Your task to perform on an android device: turn on the 12-hour format for clock Image 0: 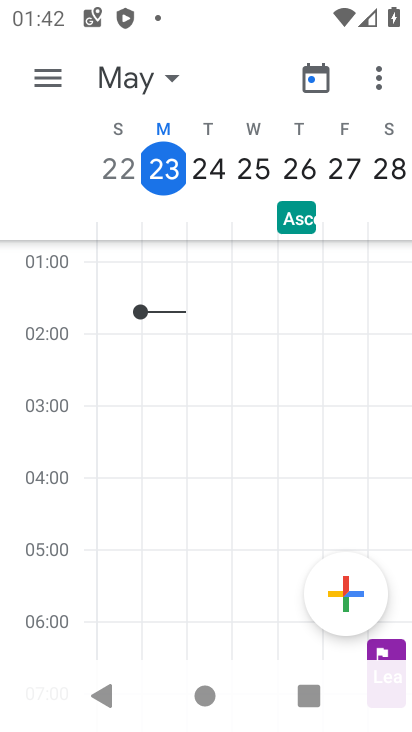
Step 0: press home button
Your task to perform on an android device: turn on the 12-hour format for clock Image 1: 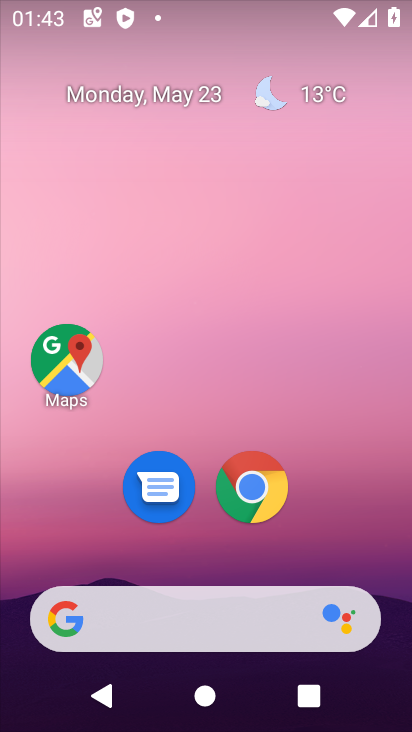
Step 1: drag from (402, 616) to (315, 13)
Your task to perform on an android device: turn on the 12-hour format for clock Image 2: 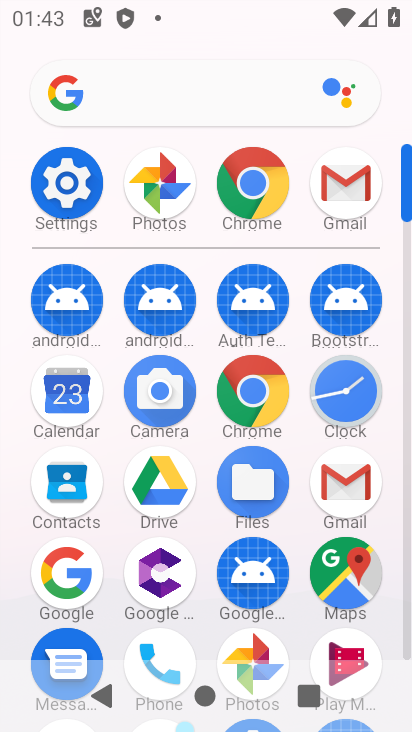
Step 2: click (402, 634)
Your task to perform on an android device: turn on the 12-hour format for clock Image 3: 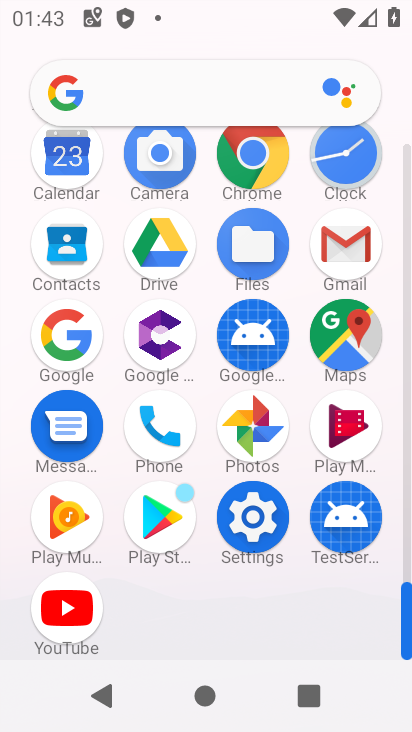
Step 3: click (350, 149)
Your task to perform on an android device: turn on the 12-hour format for clock Image 4: 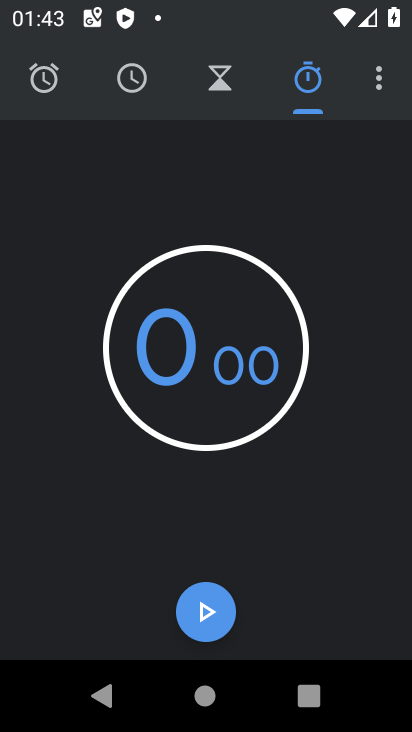
Step 4: click (375, 89)
Your task to perform on an android device: turn on the 12-hour format for clock Image 5: 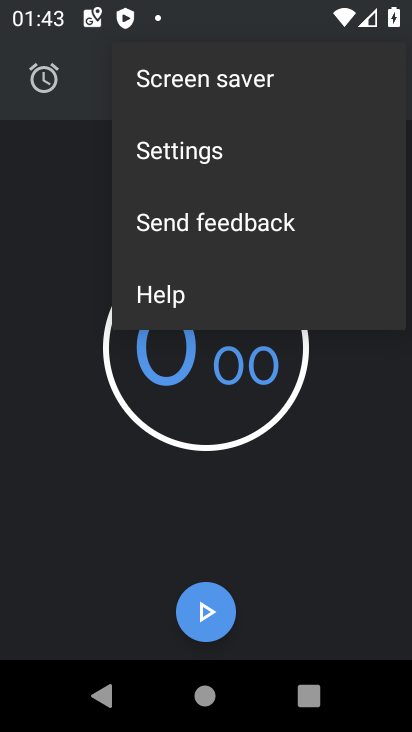
Step 5: click (171, 148)
Your task to perform on an android device: turn on the 12-hour format for clock Image 6: 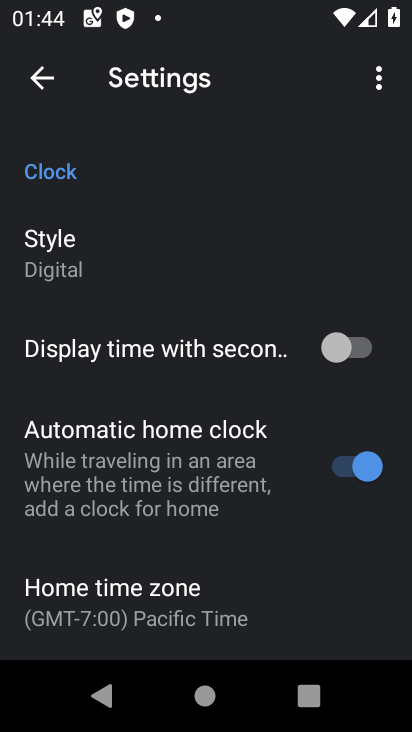
Step 6: drag from (201, 526) to (170, 165)
Your task to perform on an android device: turn on the 12-hour format for clock Image 7: 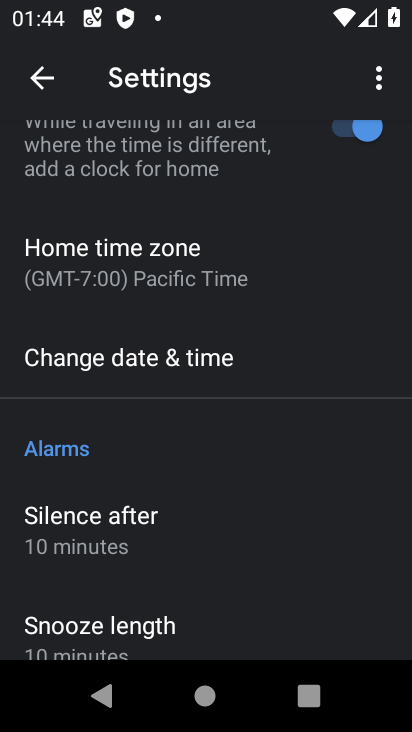
Step 7: click (119, 356)
Your task to perform on an android device: turn on the 12-hour format for clock Image 8: 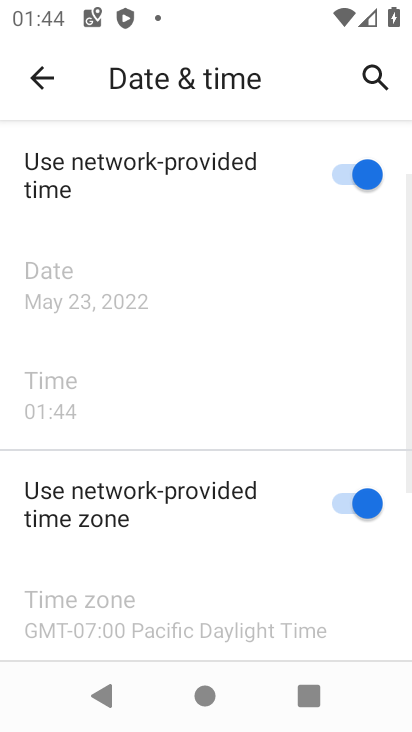
Step 8: drag from (306, 607) to (254, 175)
Your task to perform on an android device: turn on the 12-hour format for clock Image 9: 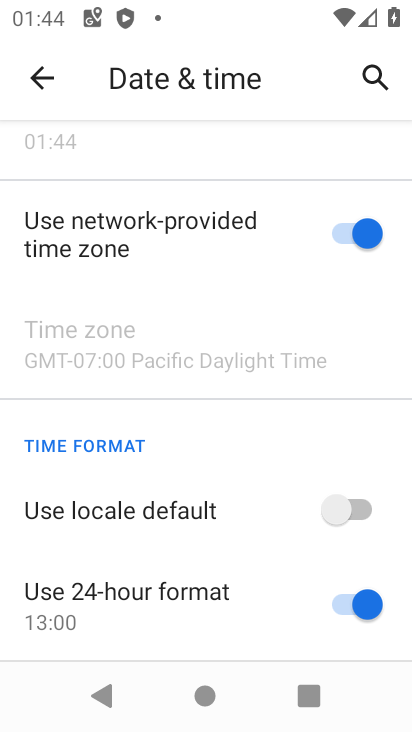
Step 9: click (367, 506)
Your task to perform on an android device: turn on the 12-hour format for clock Image 10: 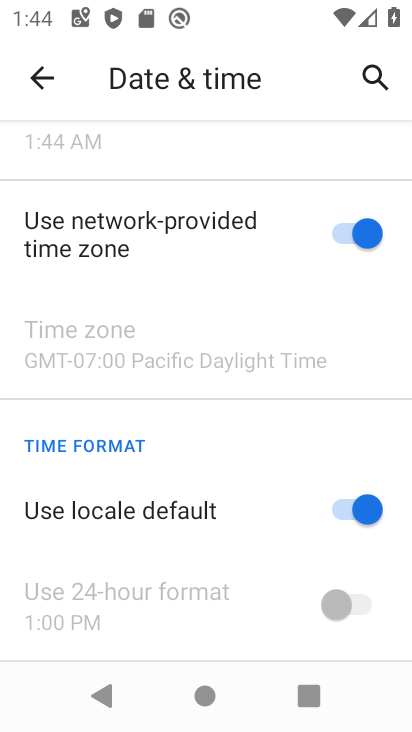
Step 10: task complete